Your task to perform on an android device: Open settings Image 0: 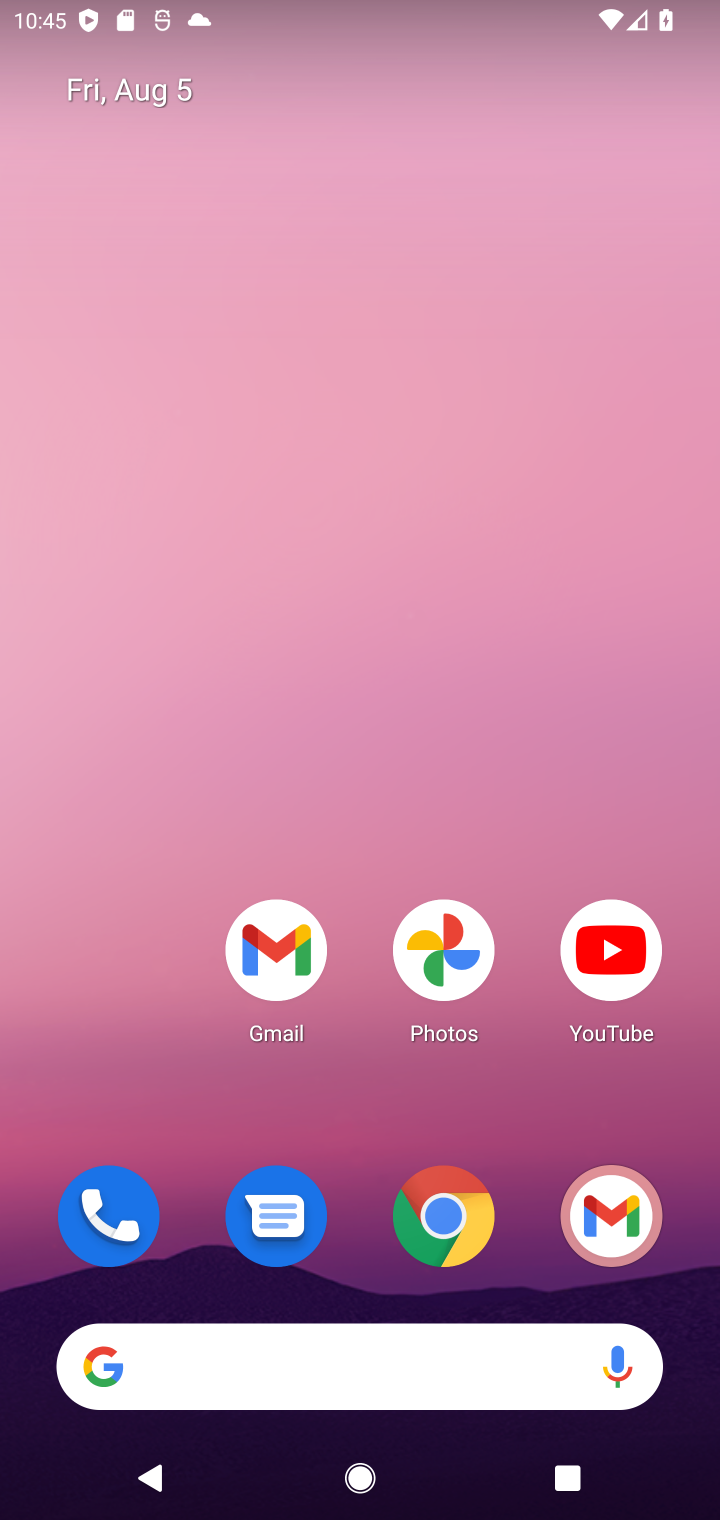
Step 0: drag from (269, 1358) to (309, 3)
Your task to perform on an android device: Open settings Image 1: 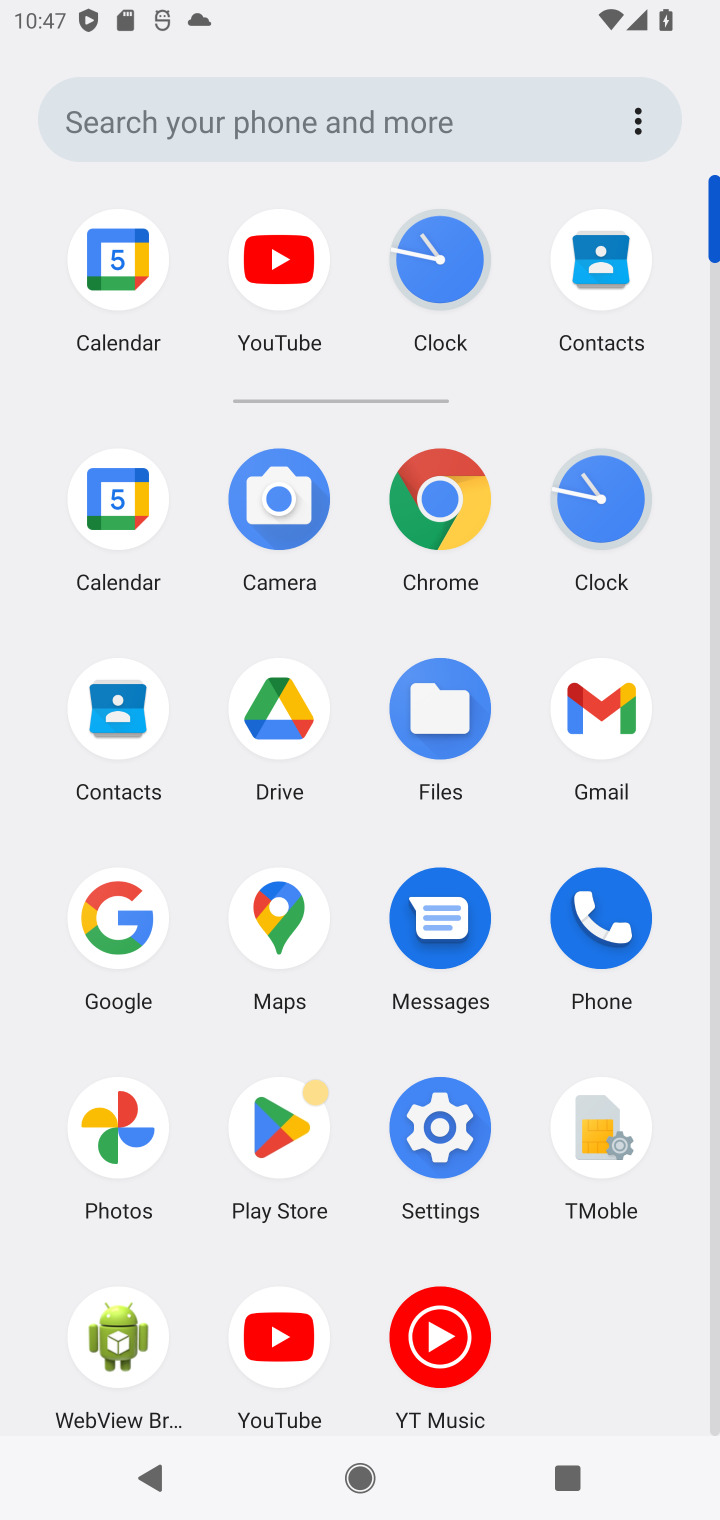
Step 1: click (436, 1113)
Your task to perform on an android device: Open settings Image 2: 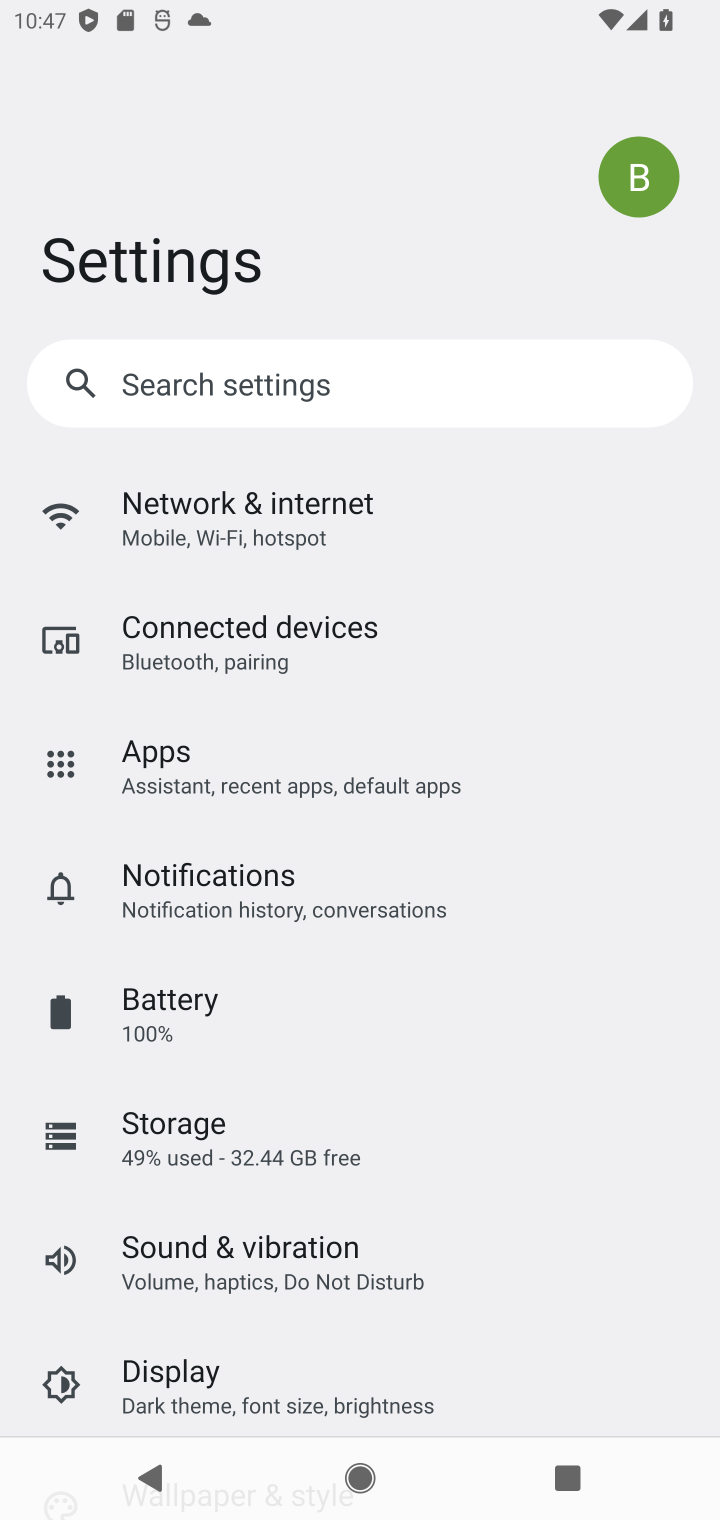
Step 2: task complete